Your task to perform on an android device: Go to wifi settings Image 0: 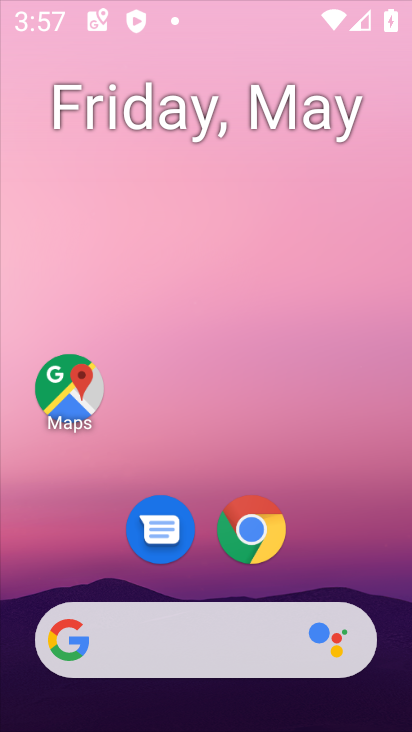
Step 0: drag from (161, 699) to (198, 358)
Your task to perform on an android device: Go to wifi settings Image 1: 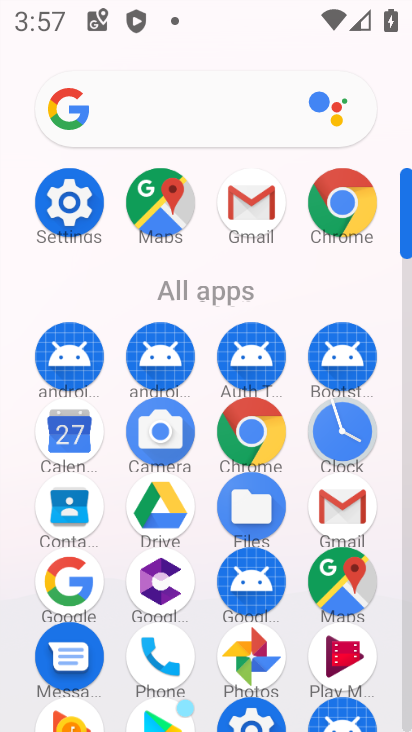
Step 1: click (52, 210)
Your task to perform on an android device: Go to wifi settings Image 2: 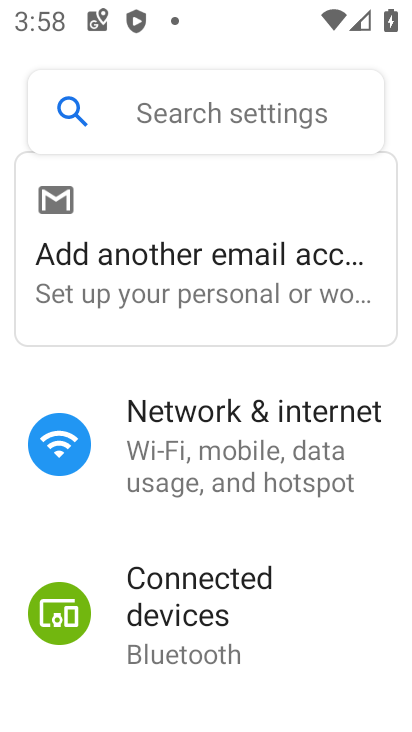
Step 2: click (253, 479)
Your task to perform on an android device: Go to wifi settings Image 3: 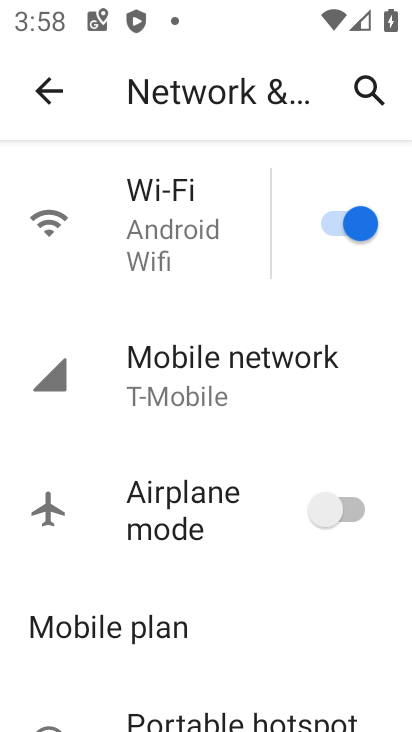
Step 3: click (201, 236)
Your task to perform on an android device: Go to wifi settings Image 4: 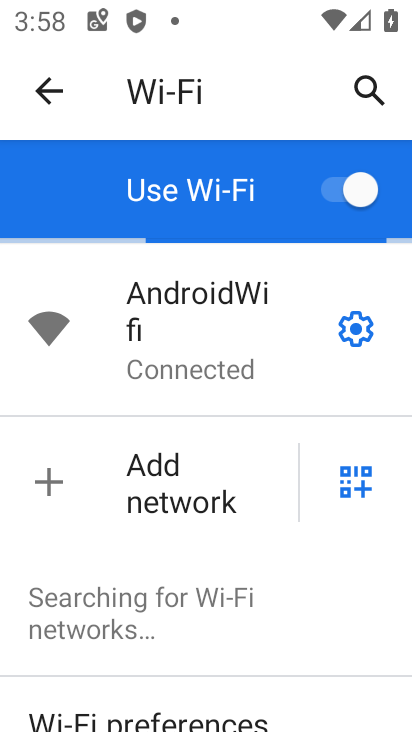
Step 4: task complete